Your task to perform on an android device: turn off notifications settings in the gmail app Image 0: 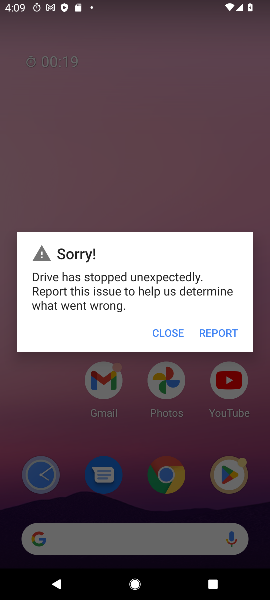
Step 0: click (163, 340)
Your task to perform on an android device: turn off notifications settings in the gmail app Image 1: 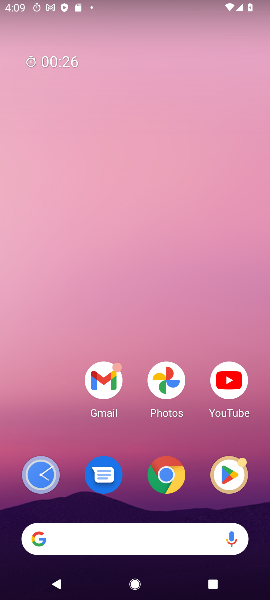
Step 1: click (93, 384)
Your task to perform on an android device: turn off notifications settings in the gmail app Image 2: 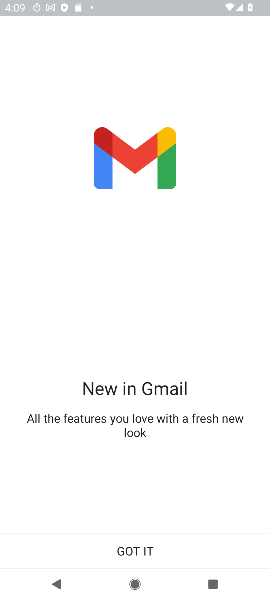
Step 2: click (94, 557)
Your task to perform on an android device: turn off notifications settings in the gmail app Image 3: 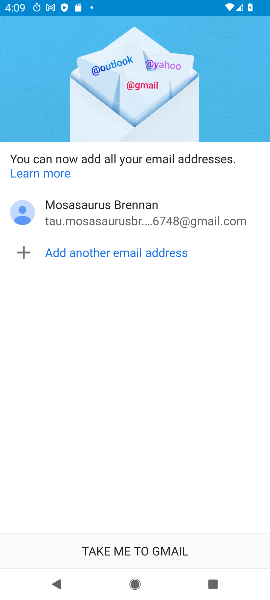
Step 3: click (125, 550)
Your task to perform on an android device: turn off notifications settings in the gmail app Image 4: 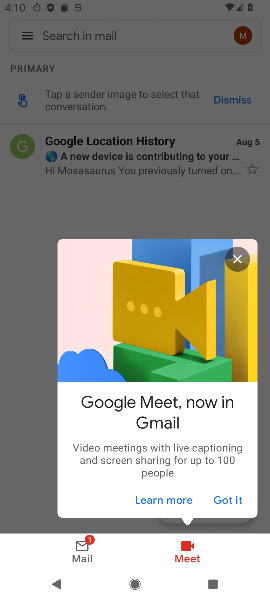
Step 4: click (224, 497)
Your task to perform on an android device: turn off notifications settings in the gmail app Image 5: 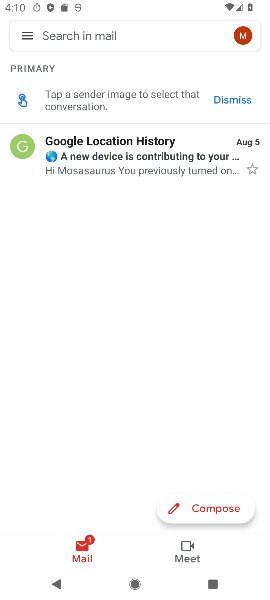
Step 5: click (29, 27)
Your task to perform on an android device: turn off notifications settings in the gmail app Image 6: 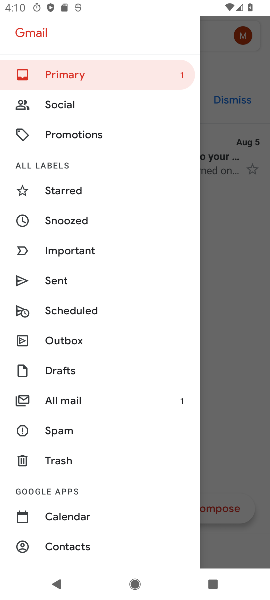
Step 6: drag from (78, 504) to (80, 169)
Your task to perform on an android device: turn off notifications settings in the gmail app Image 7: 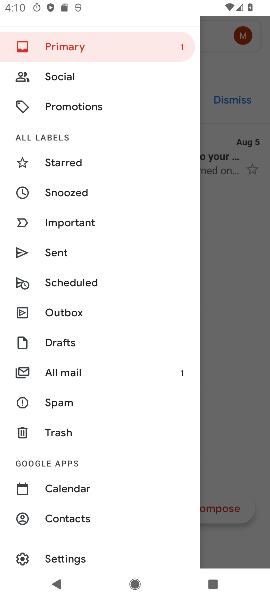
Step 7: click (66, 553)
Your task to perform on an android device: turn off notifications settings in the gmail app Image 8: 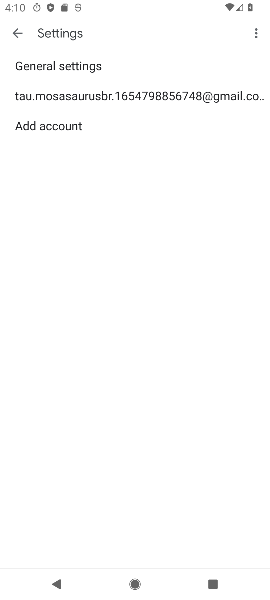
Step 8: click (179, 103)
Your task to perform on an android device: turn off notifications settings in the gmail app Image 9: 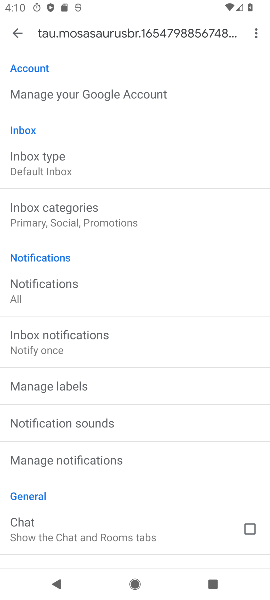
Step 9: click (68, 449)
Your task to perform on an android device: turn off notifications settings in the gmail app Image 10: 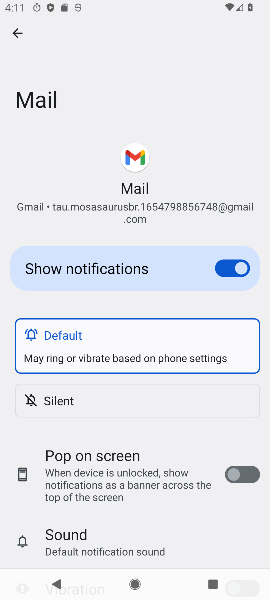
Step 10: click (231, 270)
Your task to perform on an android device: turn off notifications settings in the gmail app Image 11: 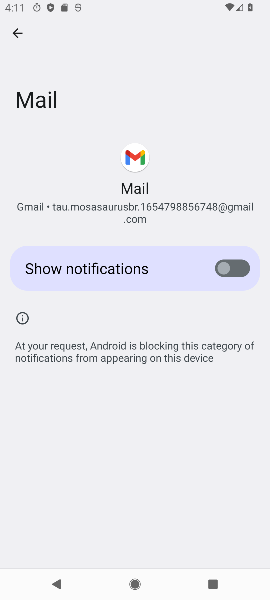
Step 11: task complete